Your task to perform on an android device: Do I have any events today? Image 0: 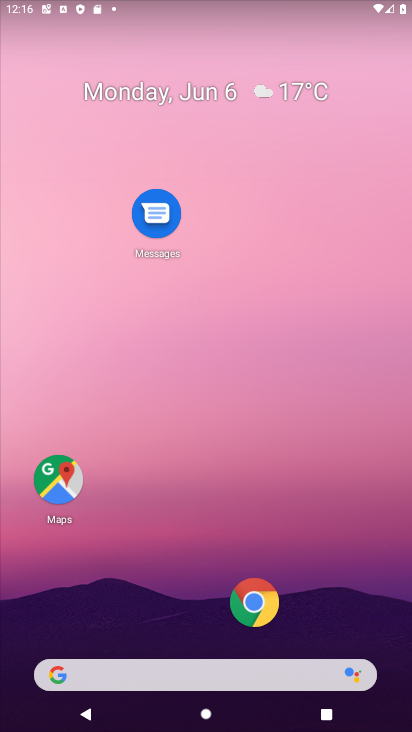
Step 0: drag from (355, 597) to (307, 177)
Your task to perform on an android device: Do I have any events today? Image 1: 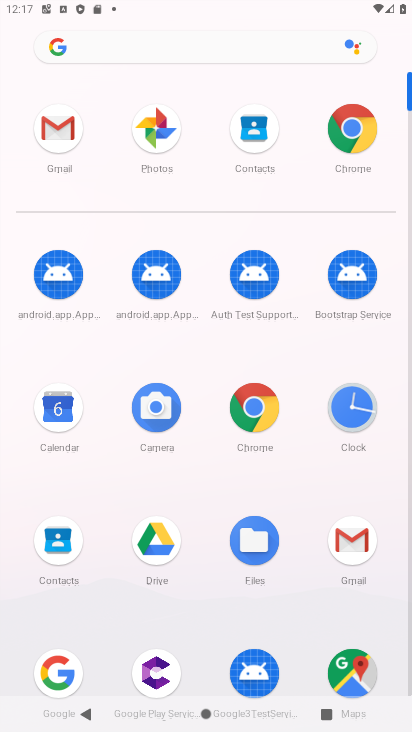
Step 1: click (50, 539)
Your task to perform on an android device: Do I have any events today? Image 2: 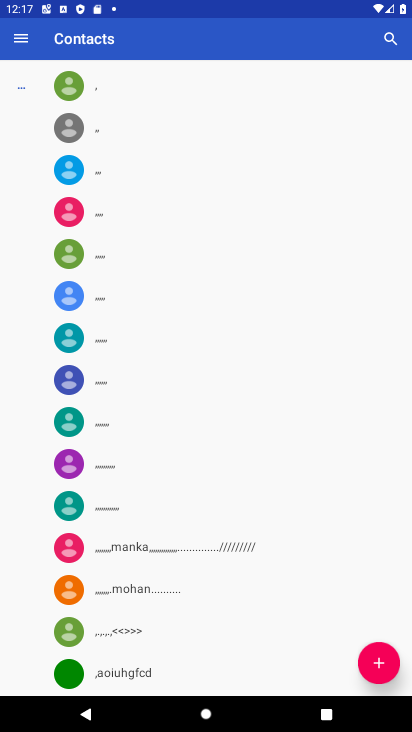
Step 2: task complete